Your task to perform on an android device: Open Chrome and go to settings Image 0: 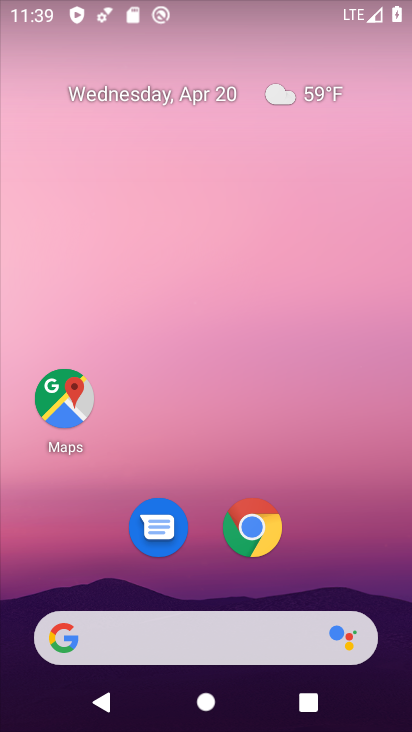
Step 0: drag from (364, 406) to (353, 156)
Your task to perform on an android device: Open Chrome and go to settings Image 1: 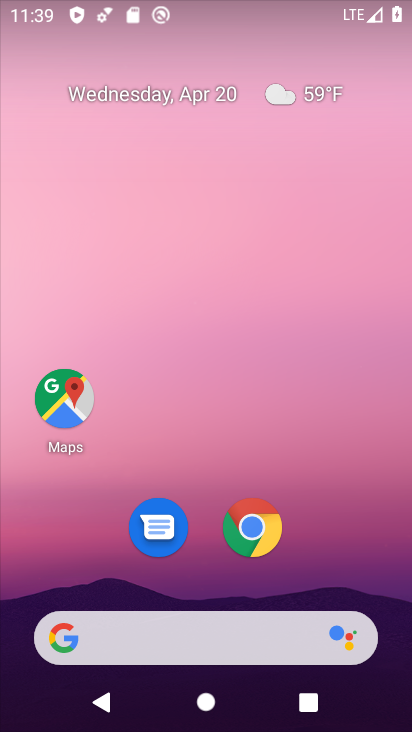
Step 1: drag from (316, 398) to (321, 149)
Your task to perform on an android device: Open Chrome and go to settings Image 2: 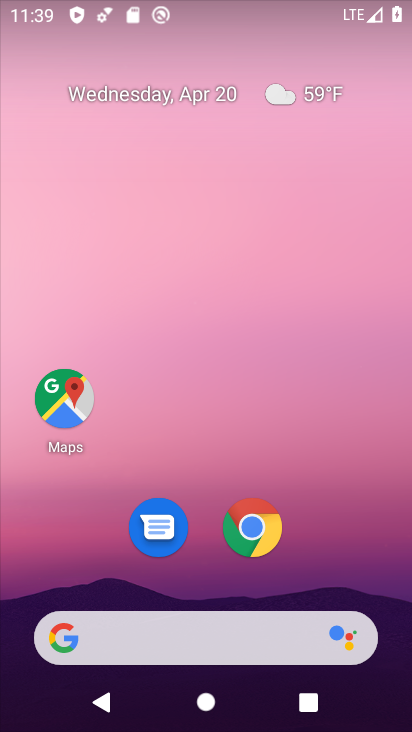
Step 2: drag from (353, 539) to (347, 180)
Your task to perform on an android device: Open Chrome and go to settings Image 3: 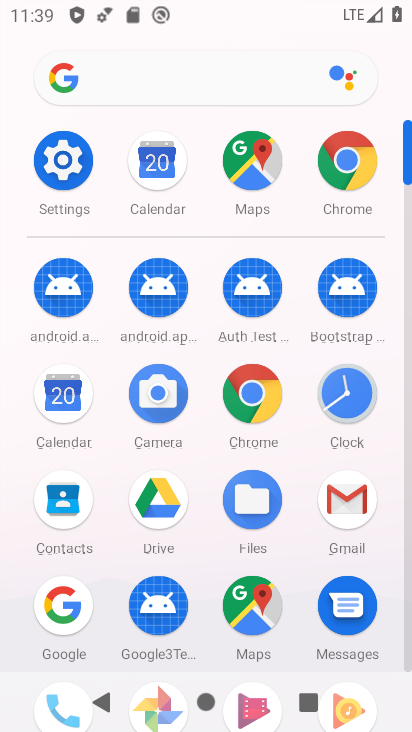
Step 3: click (339, 186)
Your task to perform on an android device: Open Chrome and go to settings Image 4: 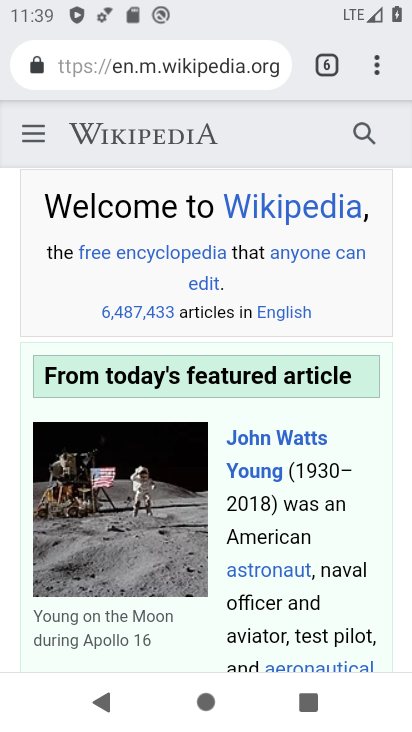
Step 4: task complete